Your task to perform on an android device: find snoozed emails in the gmail app Image 0: 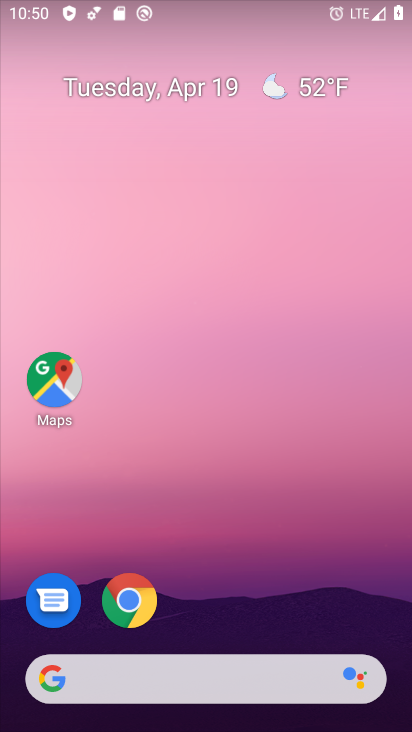
Step 0: drag from (214, 641) to (140, 18)
Your task to perform on an android device: find snoozed emails in the gmail app Image 1: 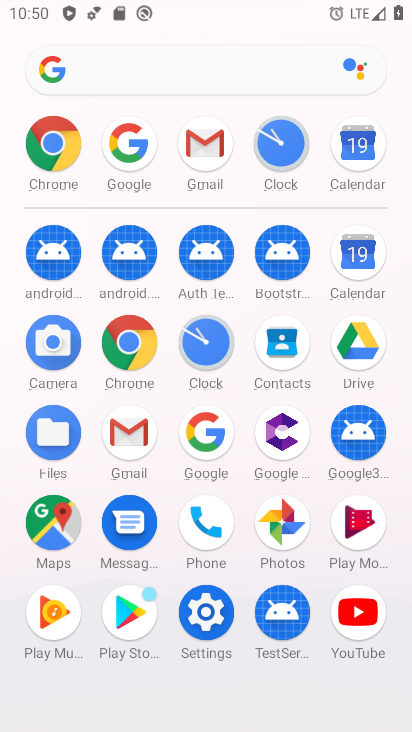
Step 1: click (106, 436)
Your task to perform on an android device: find snoozed emails in the gmail app Image 2: 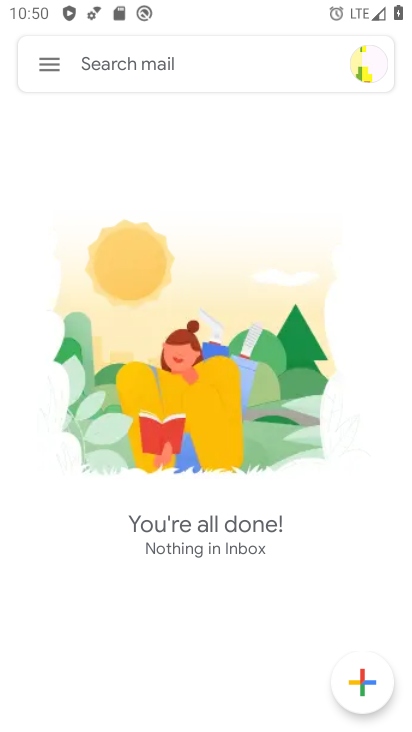
Step 2: click (46, 64)
Your task to perform on an android device: find snoozed emails in the gmail app Image 3: 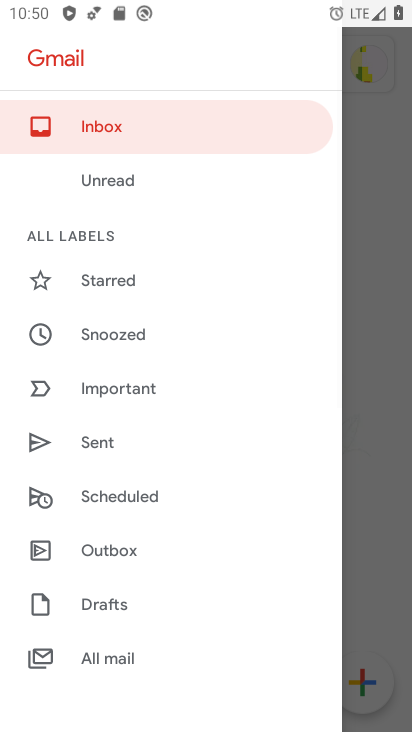
Step 3: click (133, 341)
Your task to perform on an android device: find snoozed emails in the gmail app Image 4: 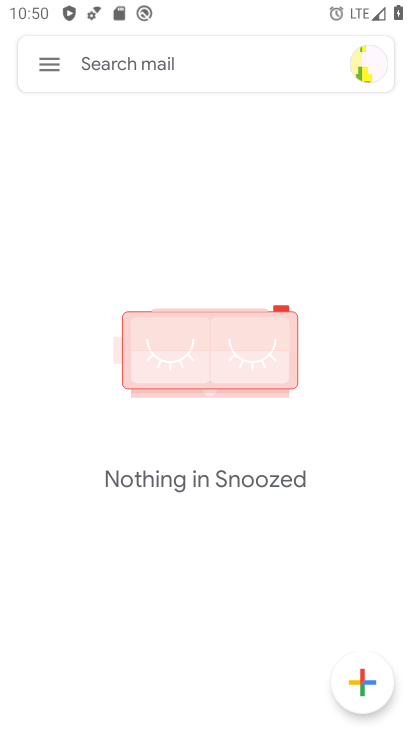
Step 4: task complete